Your task to perform on an android device: open wifi settings Image 0: 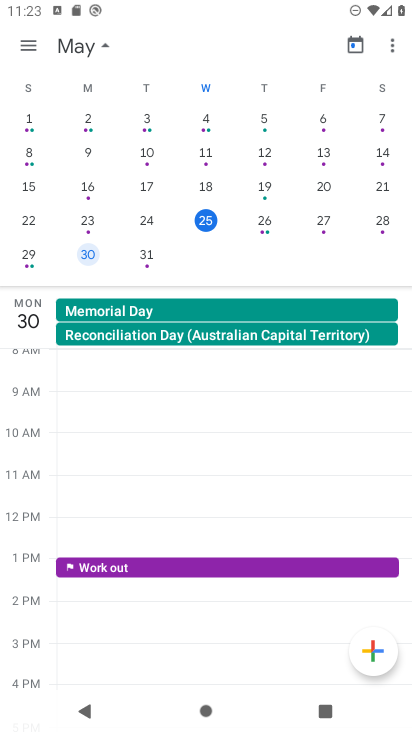
Step 0: press home button
Your task to perform on an android device: open wifi settings Image 1: 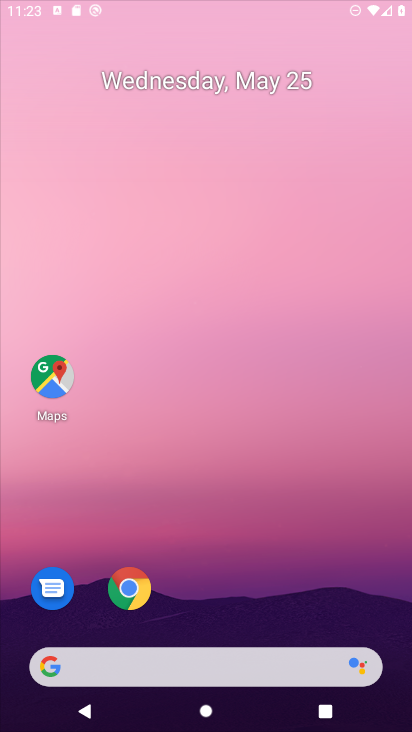
Step 1: drag from (214, 3) to (239, 534)
Your task to perform on an android device: open wifi settings Image 2: 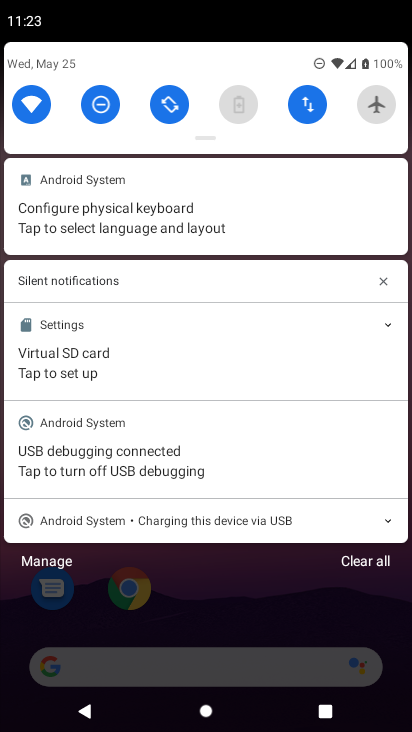
Step 2: click (20, 104)
Your task to perform on an android device: open wifi settings Image 3: 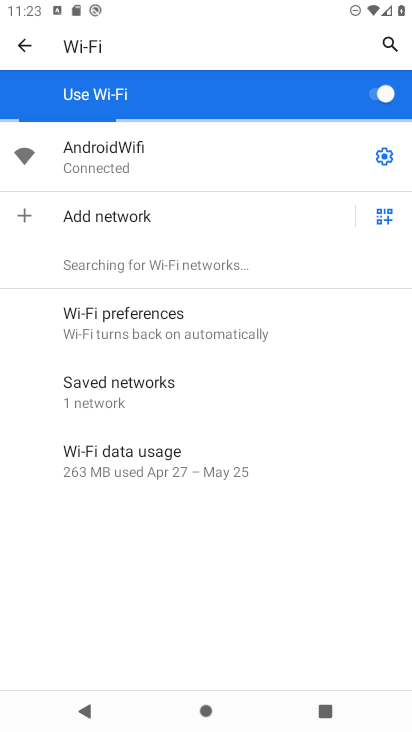
Step 3: click (389, 150)
Your task to perform on an android device: open wifi settings Image 4: 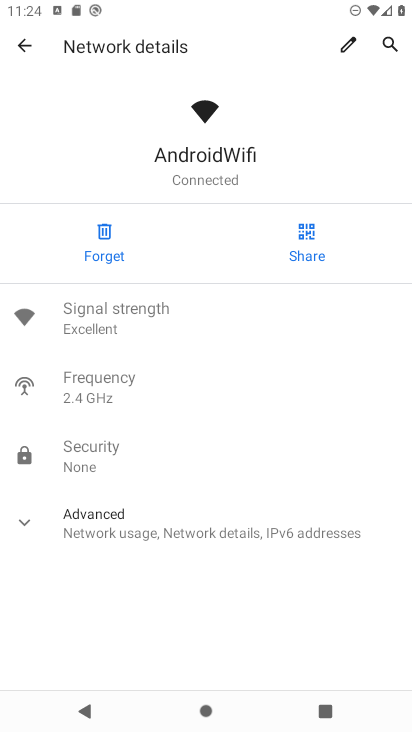
Step 4: task complete